Your task to perform on an android device: Go to Yahoo.com Image 0: 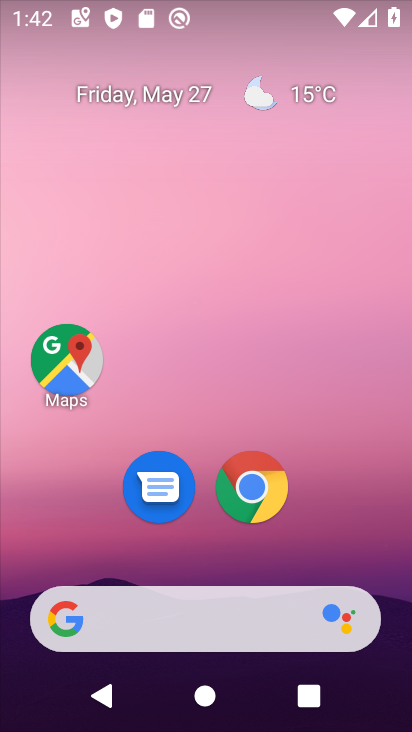
Step 0: drag from (346, 475) to (270, 32)
Your task to perform on an android device: Go to Yahoo.com Image 1: 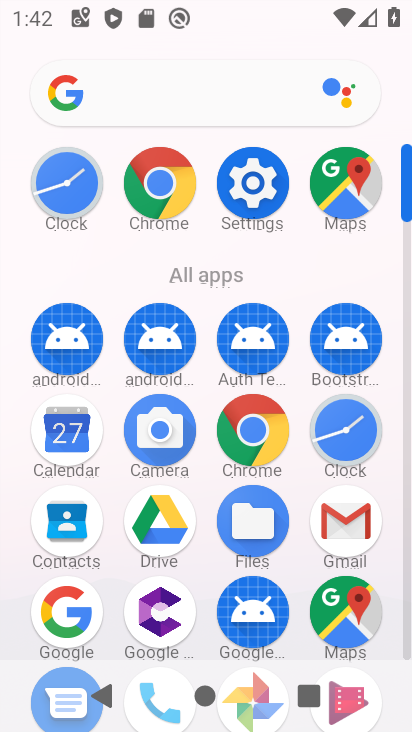
Step 1: click (160, 191)
Your task to perform on an android device: Go to Yahoo.com Image 2: 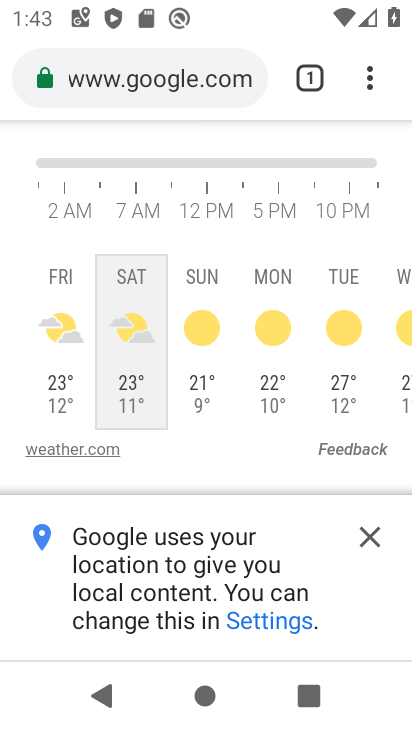
Step 2: click (153, 77)
Your task to perform on an android device: Go to Yahoo.com Image 3: 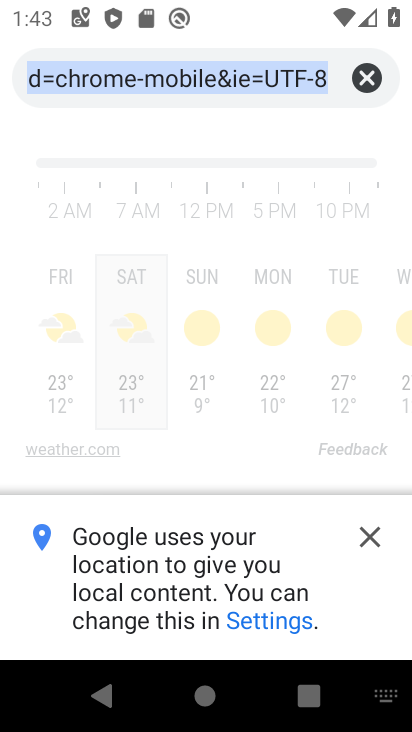
Step 3: type ""
Your task to perform on an android device: Go to Yahoo.com Image 4: 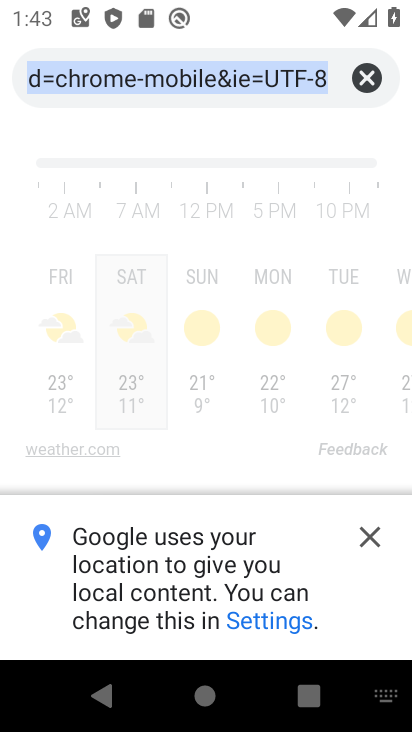
Step 4: type "yahoo.com"
Your task to perform on an android device: Go to Yahoo.com Image 5: 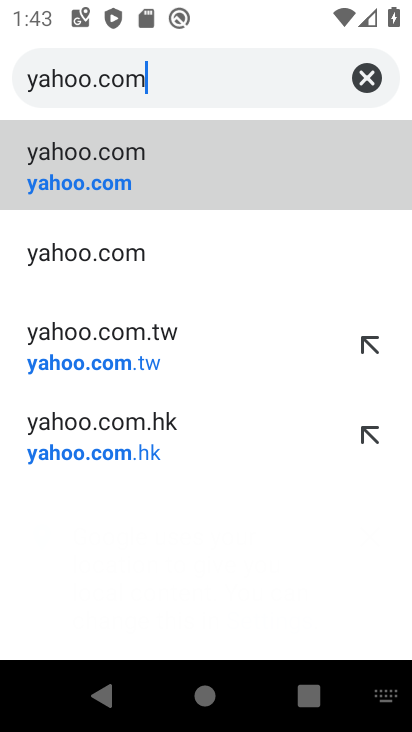
Step 5: click (50, 184)
Your task to perform on an android device: Go to Yahoo.com Image 6: 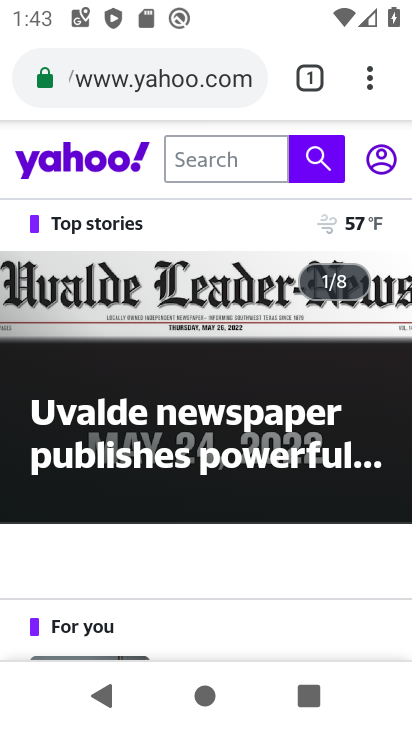
Step 6: task complete